Your task to perform on an android device: open app "Adobe Acrobat Reader: Edit PDF" (install if not already installed) Image 0: 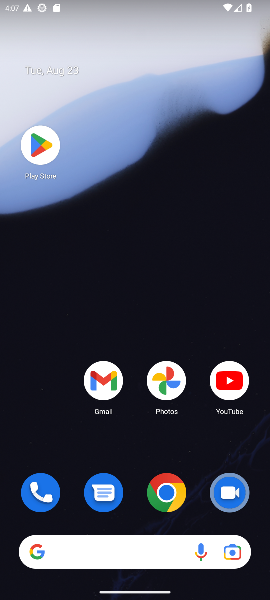
Step 0: drag from (135, 522) to (163, 27)
Your task to perform on an android device: open app "Adobe Acrobat Reader: Edit PDF" (install if not already installed) Image 1: 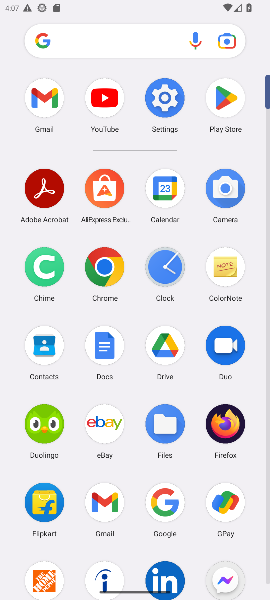
Step 1: click (235, 104)
Your task to perform on an android device: open app "Adobe Acrobat Reader: Edit PDF" (install if not already installed) Image 2: 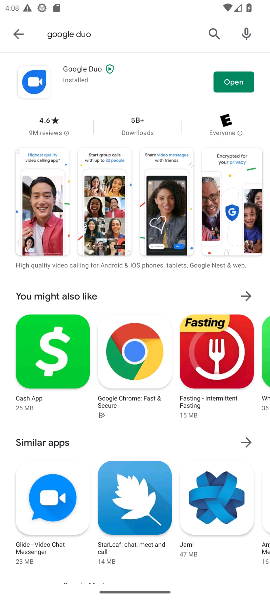
Step 2: click (206, 36)
Your task to perform on an android device: open app "Adobe Acrobat Reader: Edit PDF" (install if not already installed) Image 3: 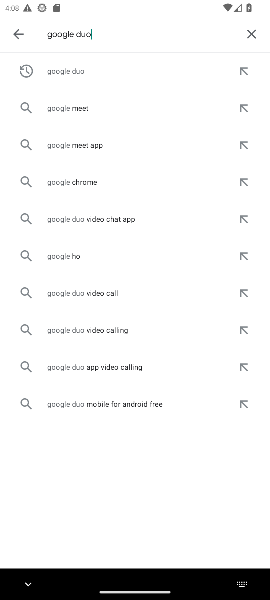
Step 3: click (243, 34)
Your task to perform on an android device: open app "Adobe Acrobat Reader: Edit PDF" (install if not already installed) Image 4: 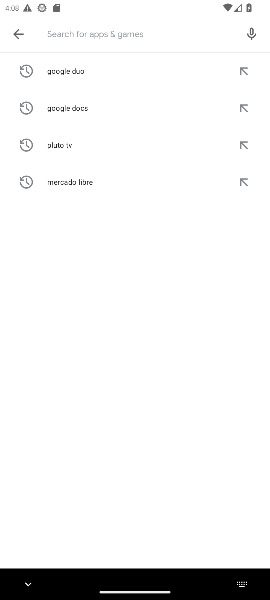
Step 4: type "adobe acrobat reader"
Your task to perform on an android device: open app "Adobe Acrobat Reader: Edit PDF" (install if not already installed) Image 5: 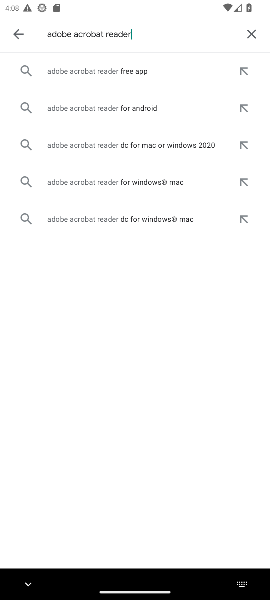
Step 5: click (149, 70)
Your task to perform on an android device: open app "Adobe Acrobat Reader: Edit PDF" (install if not already installed) Image 6: 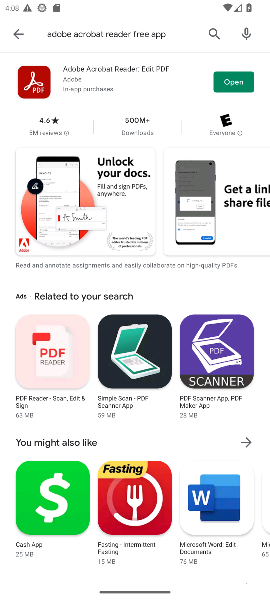
Step 6: click (223, 78)
Your task to perform on an android device: open app "Adobe Acrobat Reader: Edit PDF" (install if not already installed) Image 7: 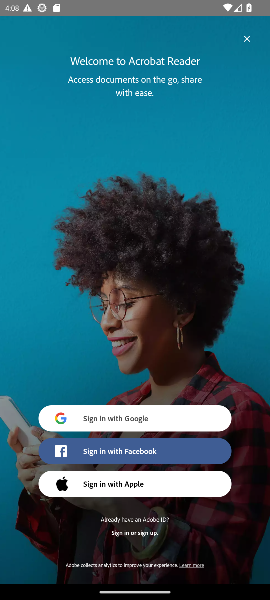
Step 7: task complete